Your task to perform on an android device: turn notification dots on Image 0: 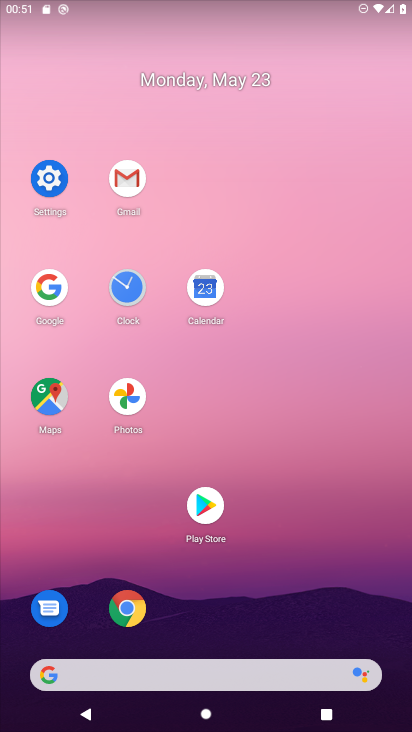
Step 0: click (39, 188)
Your task to perform on an android device: turn notification dots on Image 1: 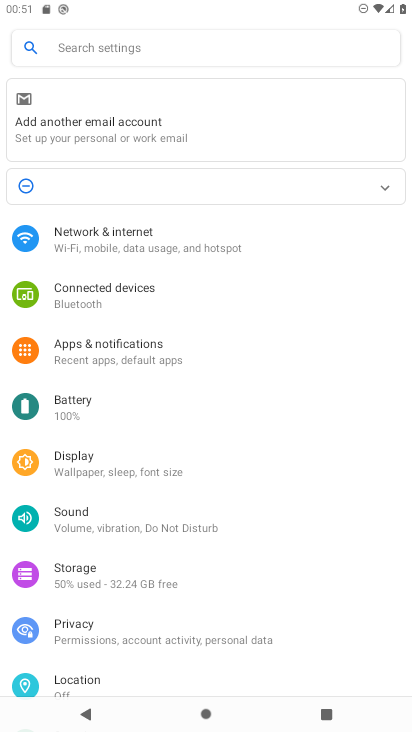
Step 1: click (163, 363)
Your task to perform on an android device: turn notification dots on Image 2: 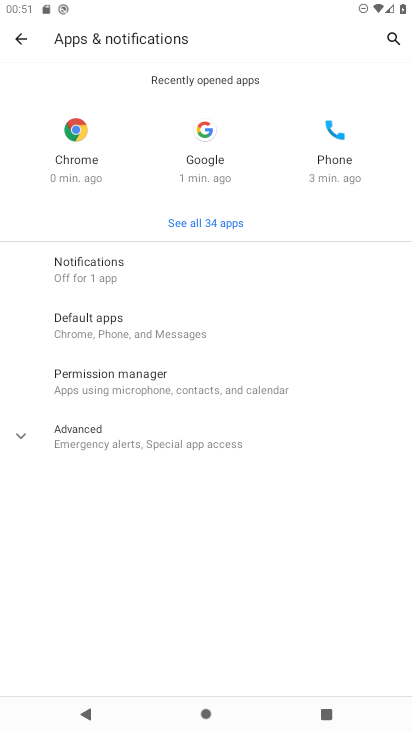
Step 2: click (82, 443)
Your task to perform on an android device: turn notification dots on Image 3: 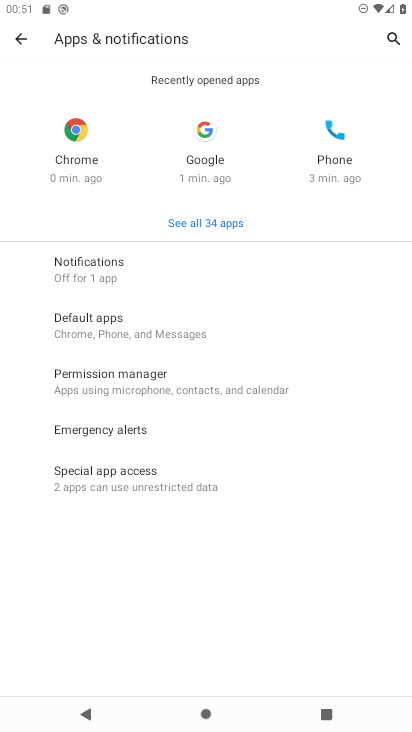
Step 3: click (95, 281)
Your task to perform on an android device: turn notification dots on Image 4: 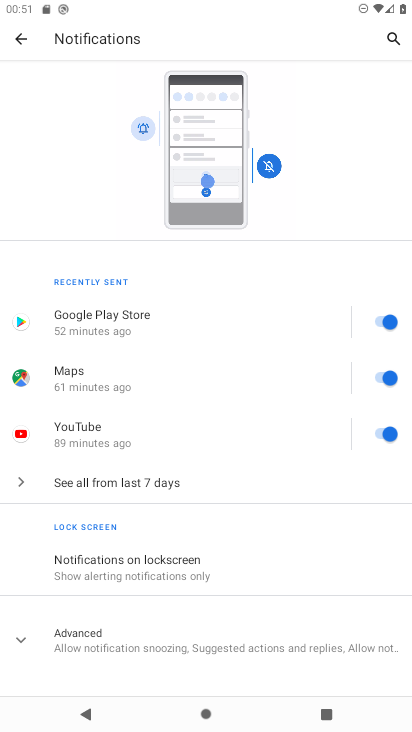
Step 4: click (167, 629)
Your task to perform on an android device: turn notification dots on Image 5: 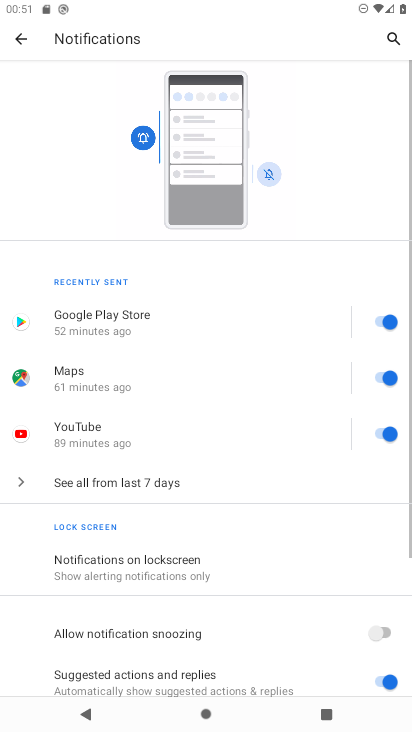
Step 5: task complete